Your task to perform on an android device: toggle wifi Image 0: 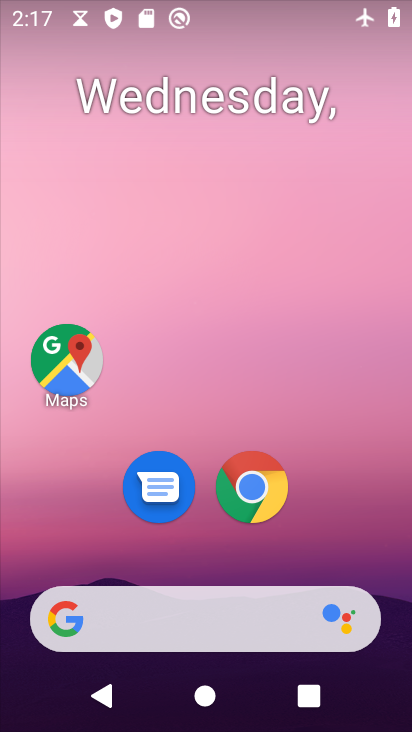
Step 0: drag from (369, 683) to (263, 153)
Your task to perform on an android device: toggle wifi Image 1: 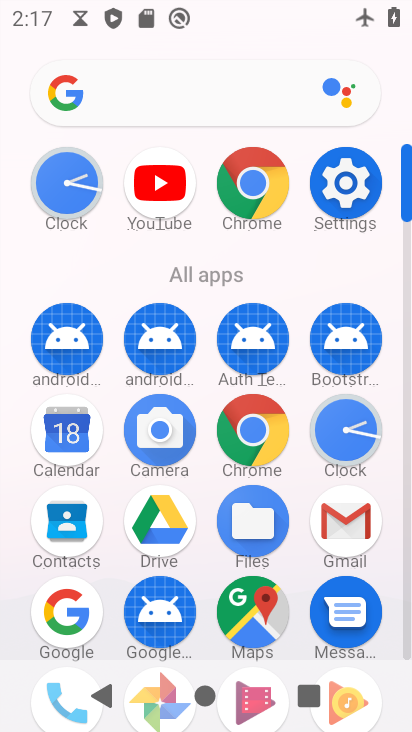
Step 1: click (342, 180)
Your task to perform on an android device: toggle wifi Image 2: 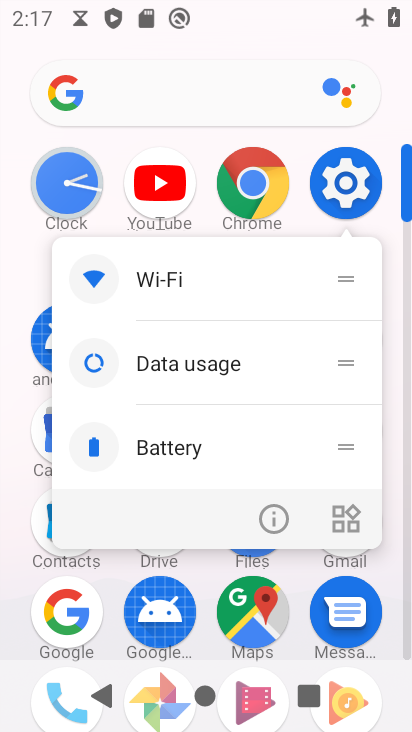
Step 2: click (331, 200)
Your task to perform on an android device: toggle wifi Image 3: 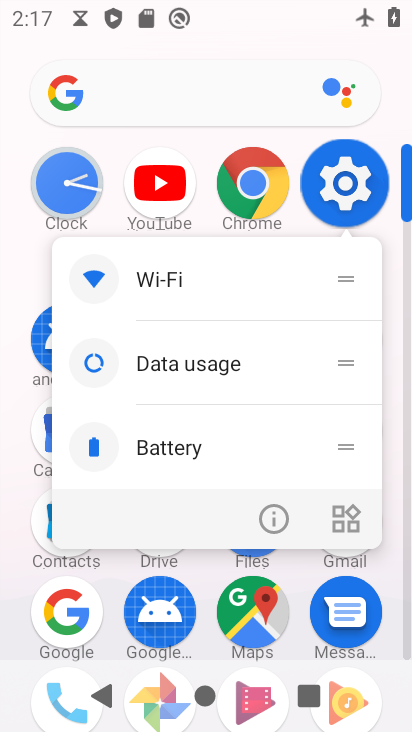
Step 3: click (339, 193)
Your task to perform on an android device: toggle wifi Image 4: 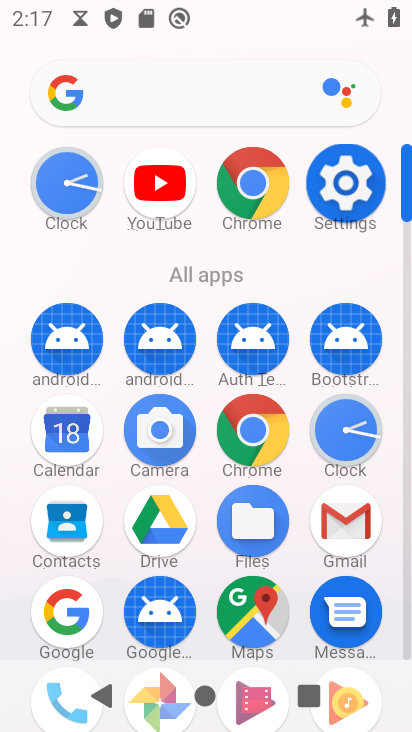
Step 4: click (339, 193)
Your task to perform on an android device: toggle wifi Image 5: 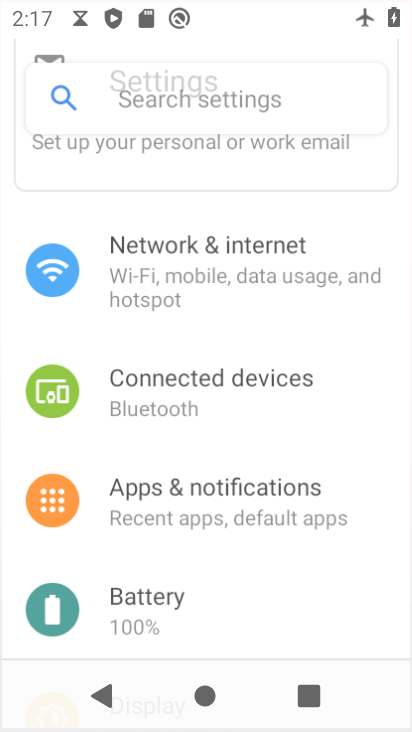
Step 5: click (340, 192)
Your task to perform on an android device: toggle wifi Image 6: 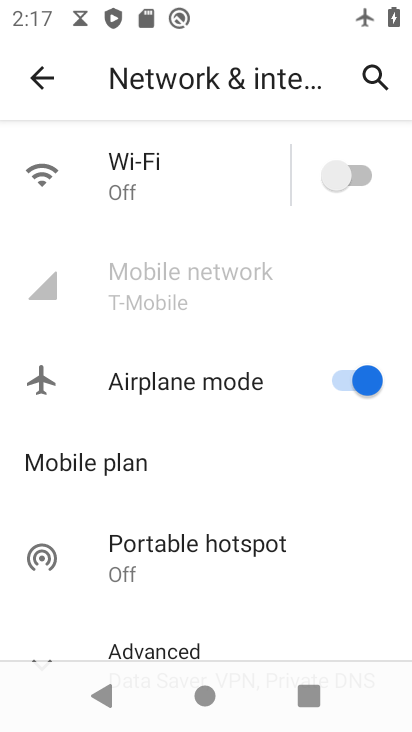
Step 6: click (336, 174)
Your task to perform on an android device: toggle wifi Image 7: 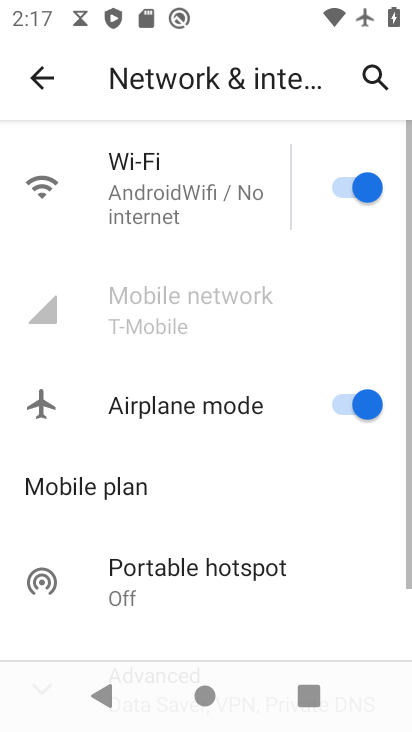
Step 7: task complete